Your task to perform on an android device: find which apps use the phone's location Image 0: 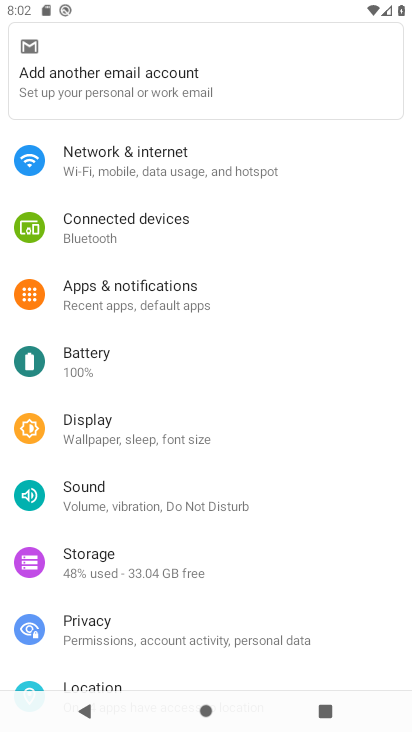
Step 0: press home button
Your task to perform on an android device: find which apps use the phone's location Image 1: 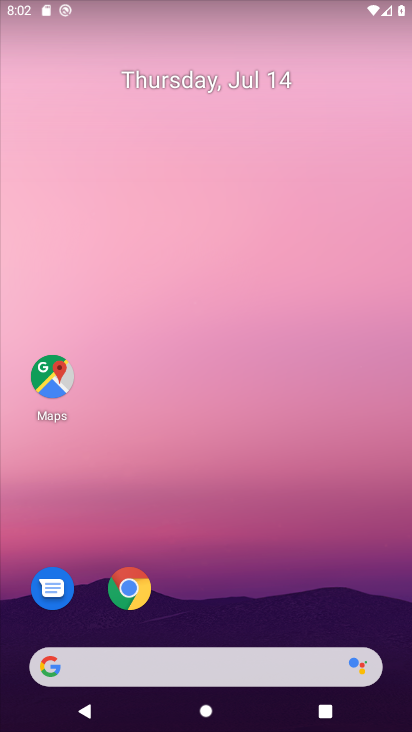
Step 1: drag from (344, 582) to (375, 127)
Your task to perform on an android device: find which apps use the phone's location Image 2: 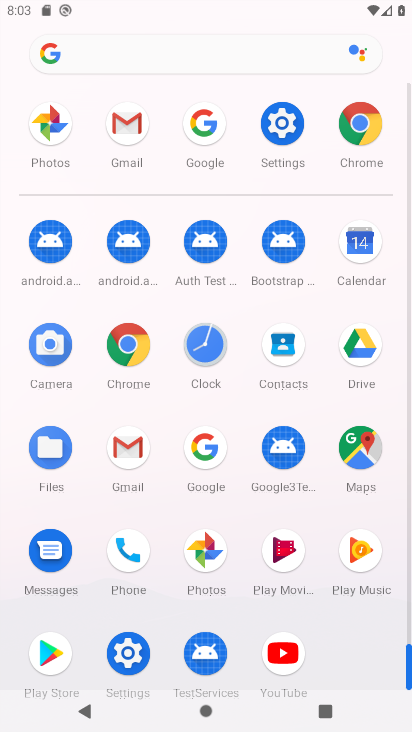
Step 2: click (282, 124)
Your task to perform on an android device: find which apps use the phone's location Image 3: 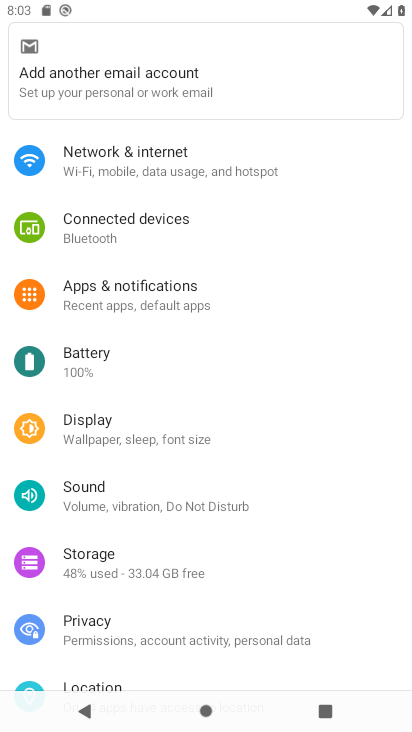
Step 3: drag from (321, 325) to (336, 275)
Your task to perform on an android device: find which apps use the phone's location Image 4: 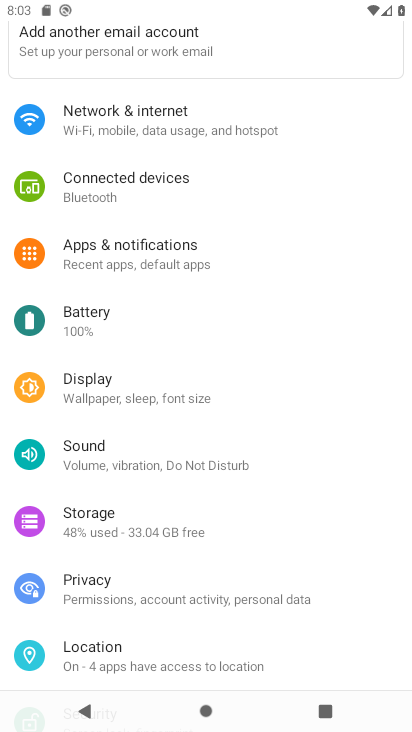
Step 4: drag from (344, 352) to (345, 277)
Your task to perform on an android device: find which apps use the phone's location Image 5: 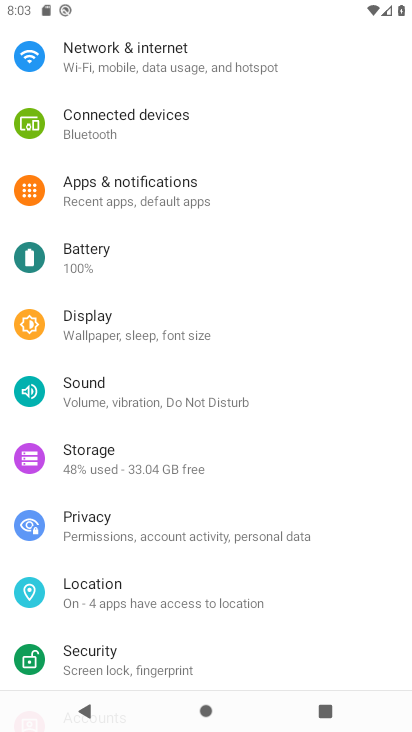
Step 5: drag from (335, 375) to (349, 305)
Your task to perform on an android device: find which apps use the phone's location Image 6: 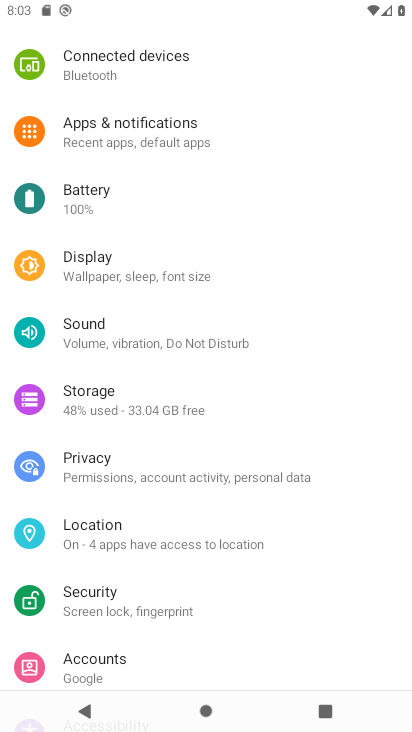
Step 6: drag from (352, 443) to (372, 333)
Your task to perform on an android device: find which apps use the phone's location Image 7: 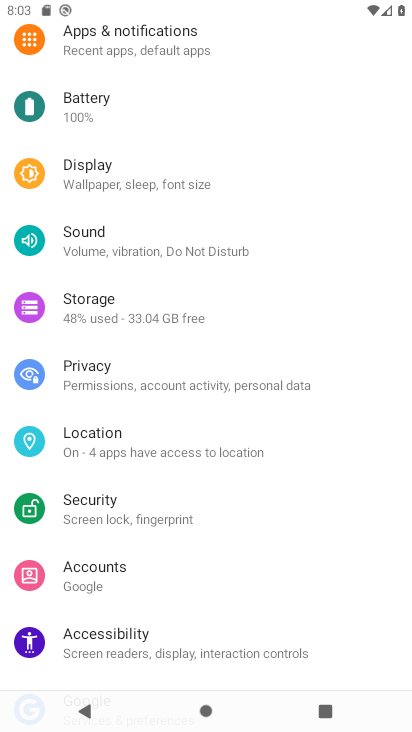
Step 7: drag from (351, 495) to (355, 398)
Your task to perform on an android device: find which apps use the phone's location Image 8: 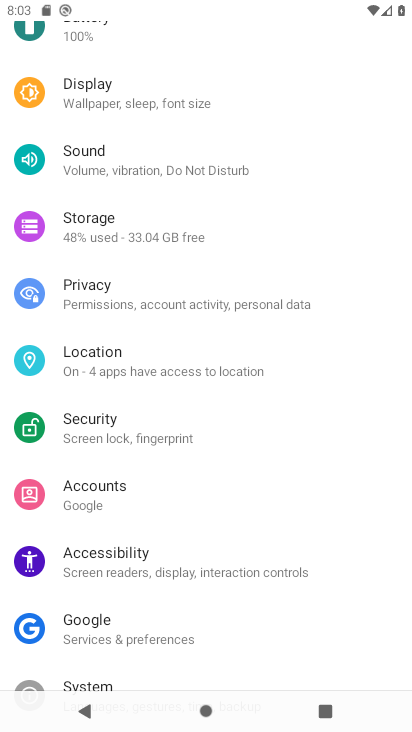
Step 8: drag from (344, 488) to (352, 361)
Your task to perform on an android device: find which apps use the phone's location Image 9: 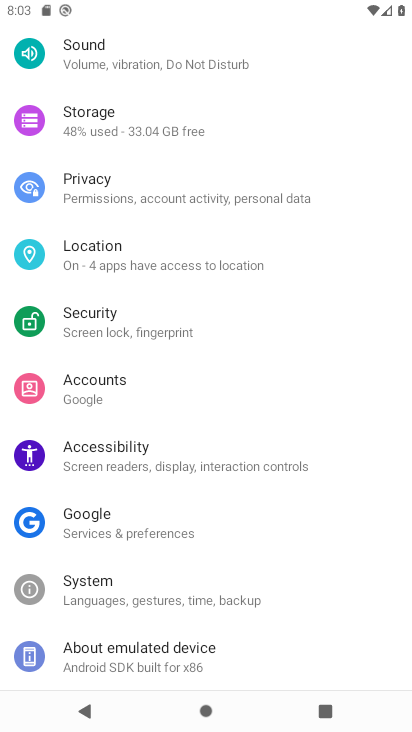
Step 9: drag from (358, 311) to (367, 393)
Your task to perform on an android device: find which apps use the phone's location Image 10: 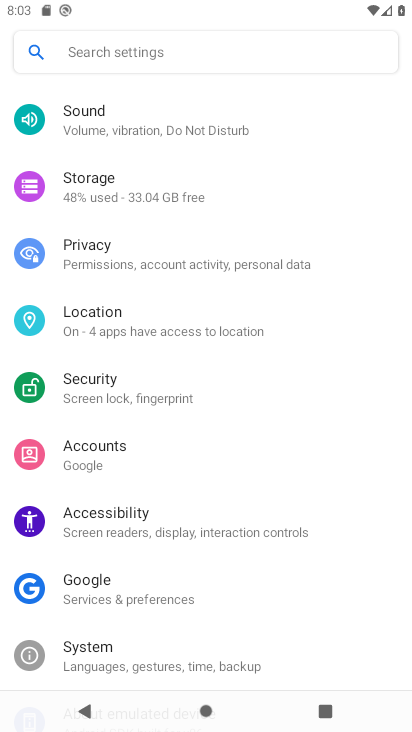
Step 10: drag from (366, 345) to (387, 429)
Your task to perform on an android device: find which apps use the phone's location Image 11: 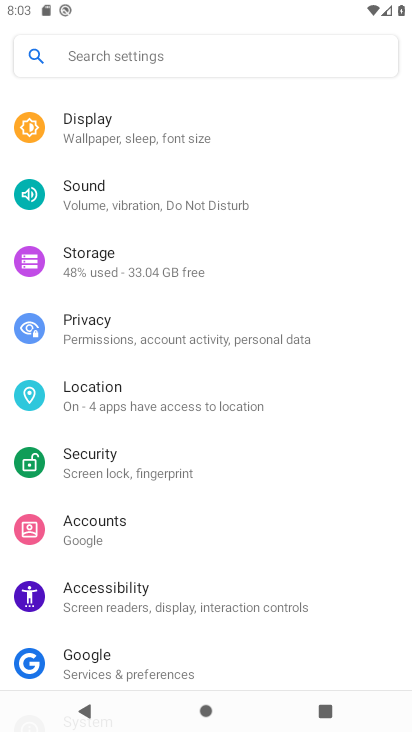
Step 11: drag from (366, 306) to (359, 436)
Your task to perform on an android device: find which apps use the phone's location Image 12: 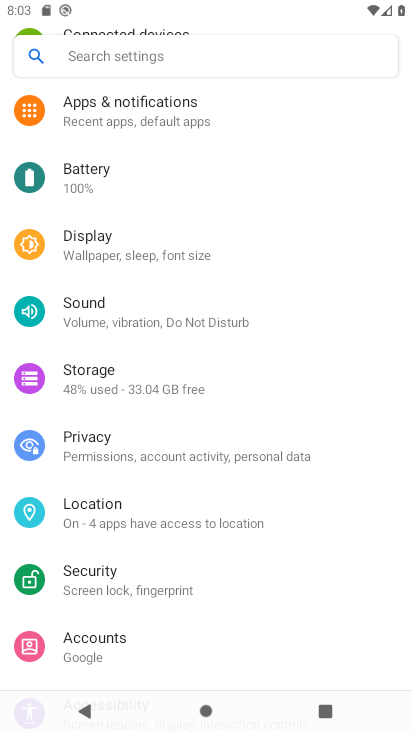
Step 12: click (221, 524)
Your task to perform on an android device: find which apps use the phone's location Image 13: 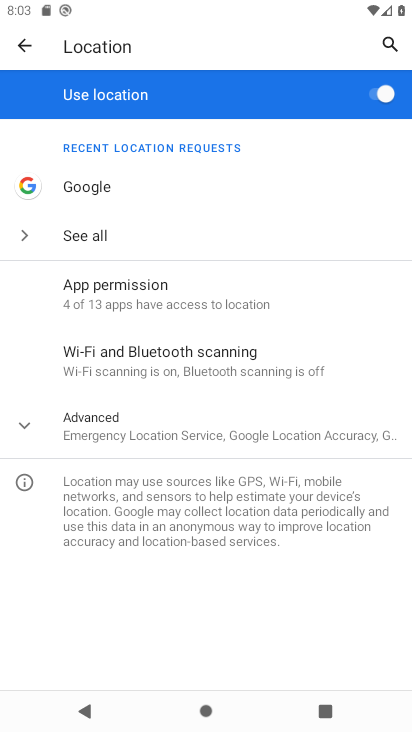
Step 13: click (186, 291)
Your task to perform on an android device: find which apps use the phone's location Image 14: 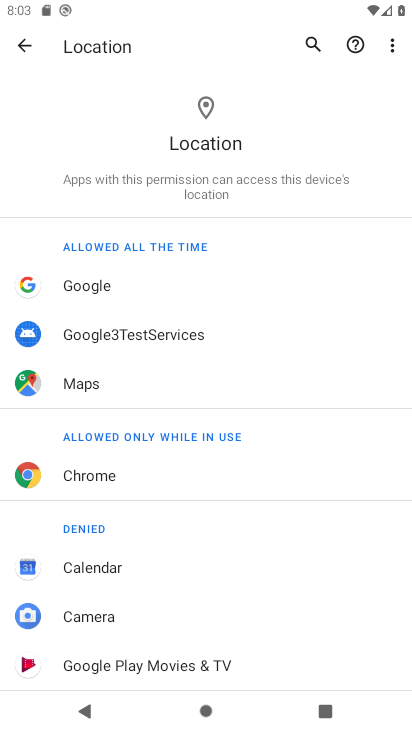
Step 14: drag from (327, 417) to (327, 359)
Your task to perform on an android device: find which apps use the phone's location Image 15: 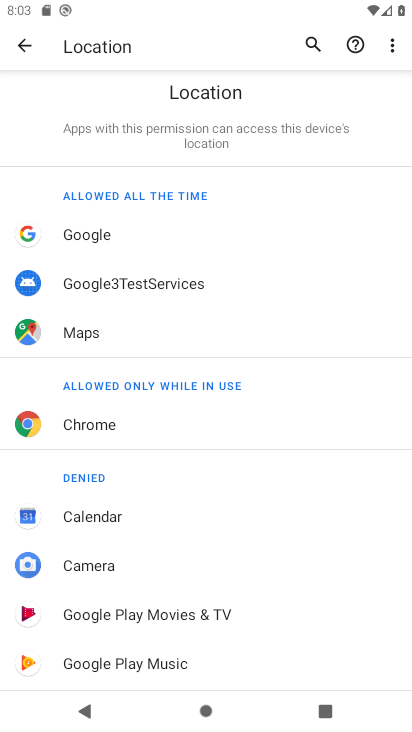
Step 15: drag from (331, 447) to (339, 375)
Your task to perform on an android device: find which apps use the phone's location Image 16: 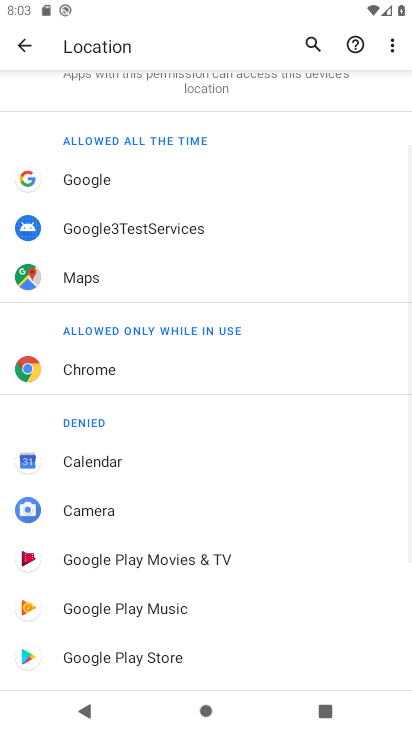
Step 16: drag from (366, 494) to (379, 377)
Your task to perform on an android device: find which apps use the phone's location Image 17: 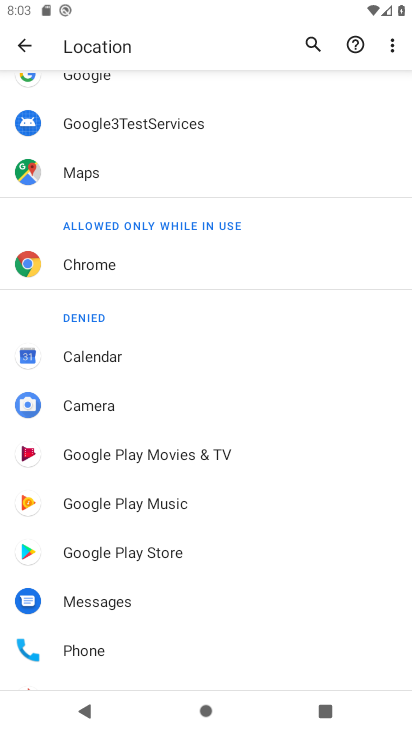
Step 17: drag from (332, 494) to (330, 417)
Your task to perform on an android device: find which apps use the phone's location Image 18: 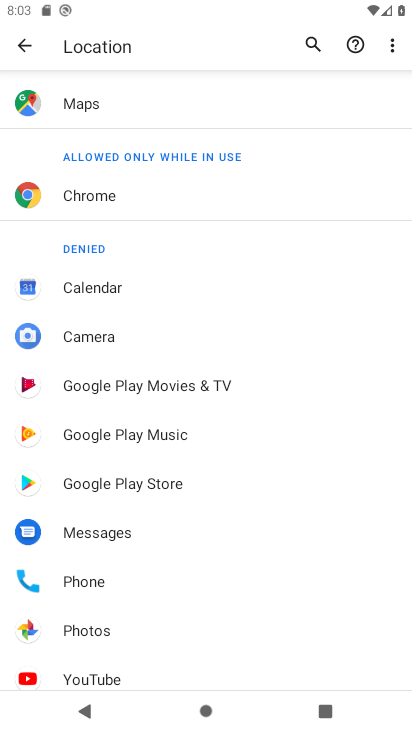
Step 18: drag from (329, 508) to (340, 414)
Your task to perform on an android device: find which apps use the phone's location Image 19: 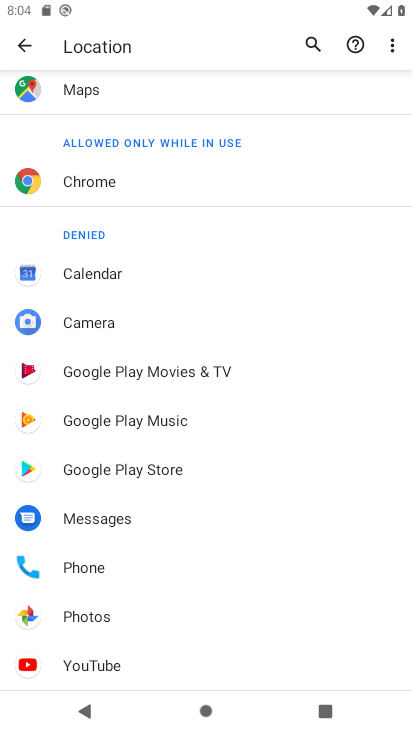
Step 19: click (111, 615)
Your task to perform on an android device: find which apps use the phone's location Image 20: 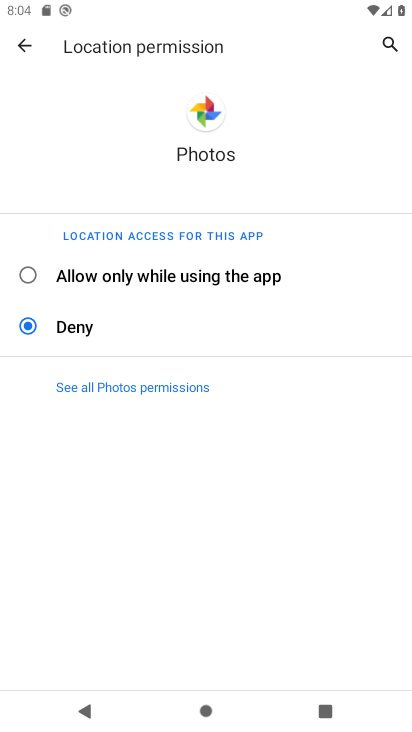
Step 20: click (54, 265)
Your task to perform on an android device: find which apps use the phone's location Image 21: 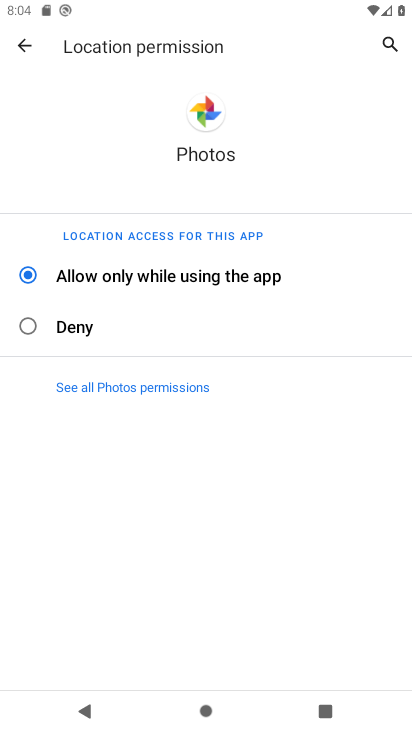
Step 21: task complete